Your task to perform on an android device: toggle show notifications on the lock screen Image 0: 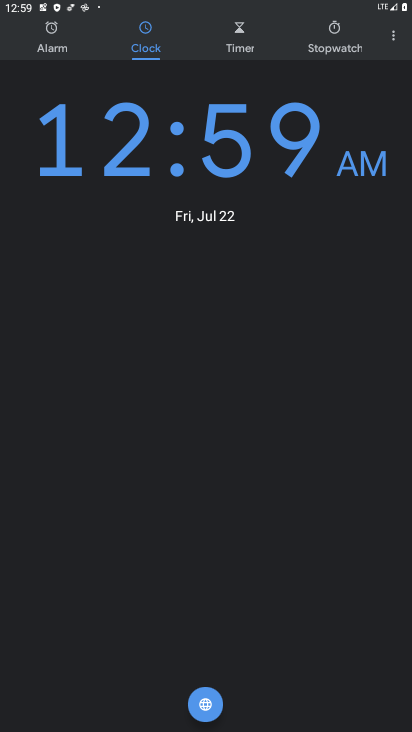
Step 0: press home button
Your task to perform on an android device: toggle show notifications on the lock screen Image 1: 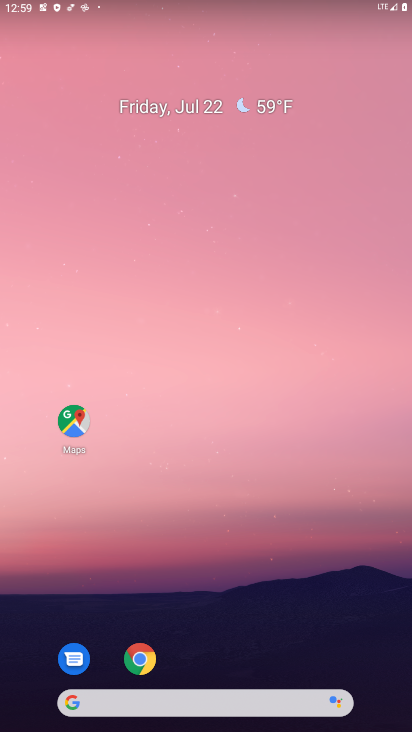
Step 1: drag from (334, 579) to (2, 159)
Your task to perform on an android device: toggle show notifications on the lock screen Image 2: 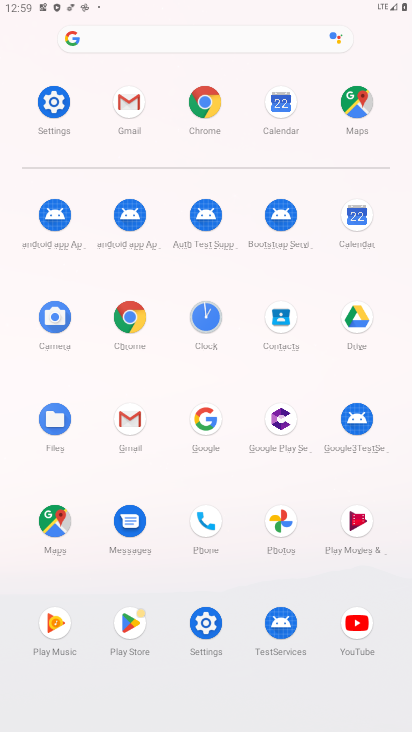
Step 2: click (51, 105)
Your task to perform on an android device: toggle show notifications on the lock screen Image 3: 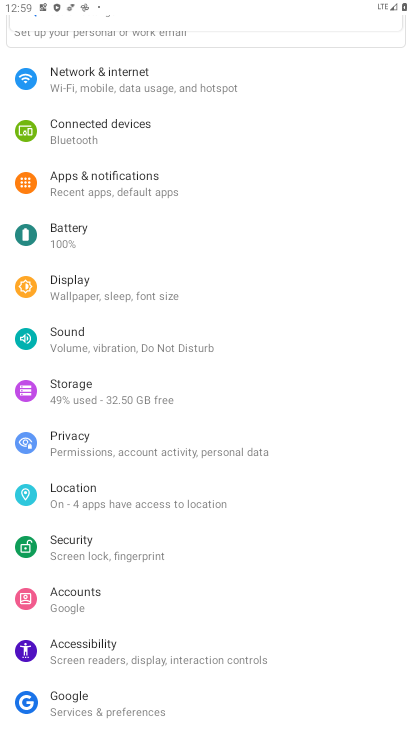
Step 3: click (119, 185)
Your task to perform on an android device: toggle show notifications on the lock screen Image 4: 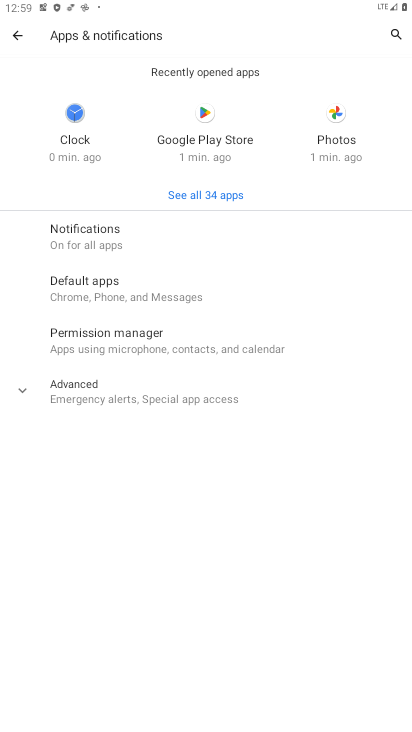
Step 4: click (77, 239)
Your task to perform on an android device: toggle show notifications on the lock screen Image 5: 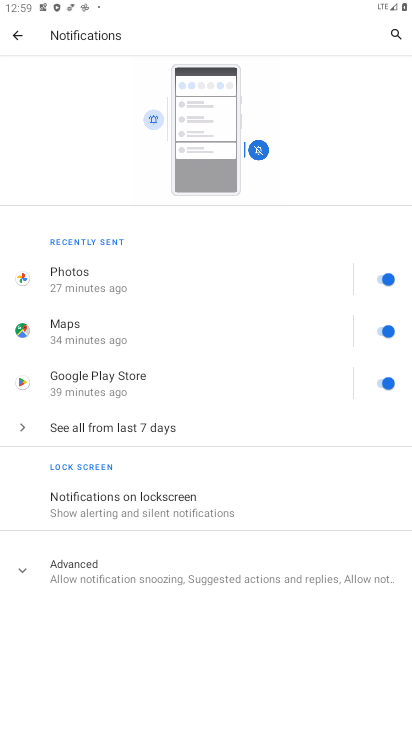
Step 5: click (176, 515)
Your task to perform on an android device: toggle show notifications on the lock screen Image 6: 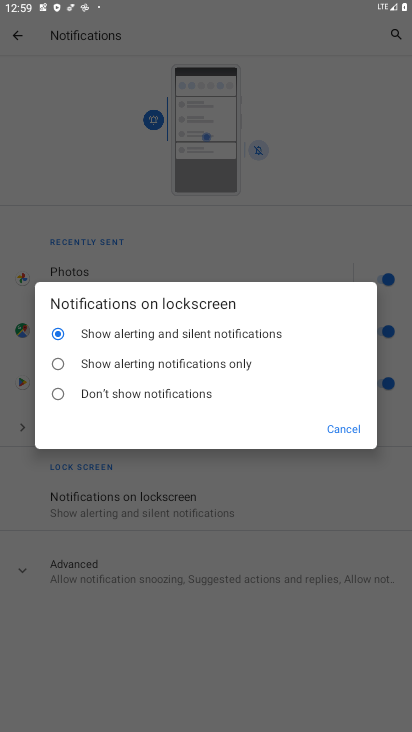
Step 6: click (133, 368)
Your task to perform on an android device: toggle show notifications on the lock screen Image 7: 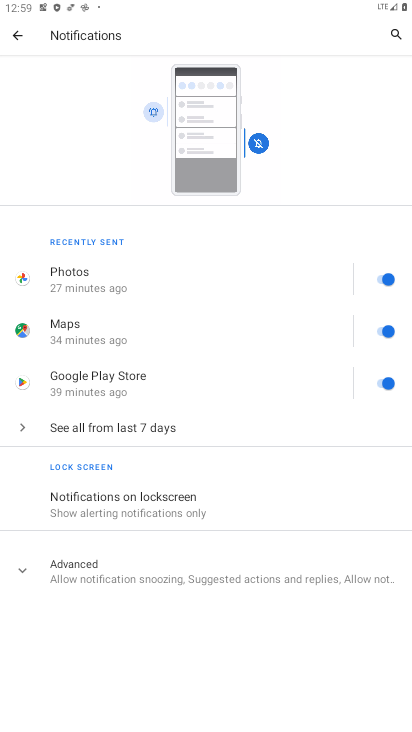
Step 7: task complete